Your task to perform on an android device: turn off location history Image 0: 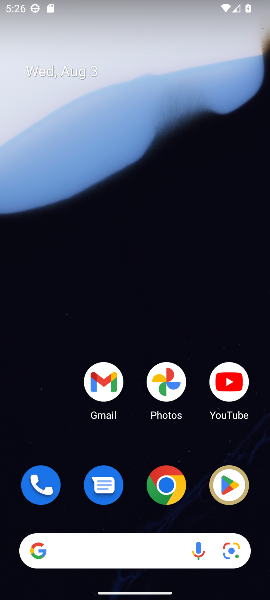
Step 0: drag from (144, 457) to (183, 274)
Your task to perform on an android device: turn off location history Image 1: 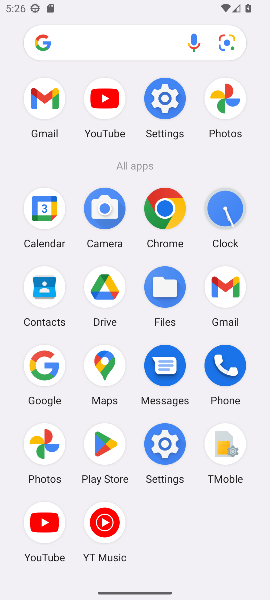
Step 1: click (165, 458)
Your task to perform on an android device: turn off location history Image 2: 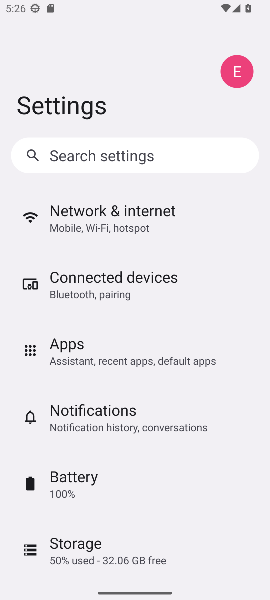
Step 2: drag from (121, 435) to (153, 267)
Your task to perform on an android device: turn off location history Image 3: 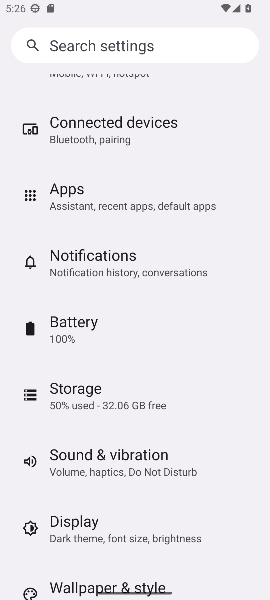
Step 3: drag from (108, 469) to (134, 308)
Your task to perform on an android device: turn off location history Image 4: 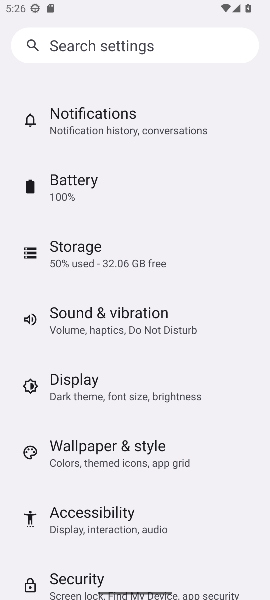
Step 4: drag from (114, 500) to (160, 354)
Your task to perform on an android device: turn off location history Image 5: 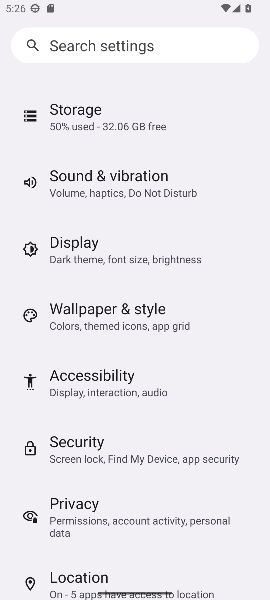
Step 5: click (84, 575)
Your task to perform on an android device: turn off location history Image 6: 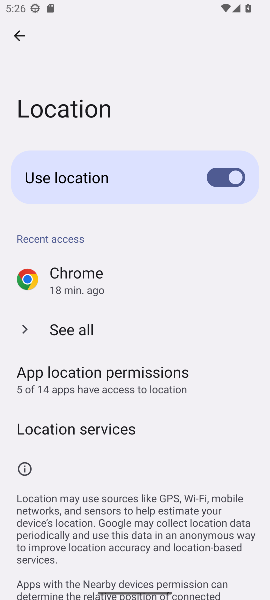
Step 6: drag from (150, 409) to (174, 257)
Your task to perform on an android device: turn off location history Image 7: 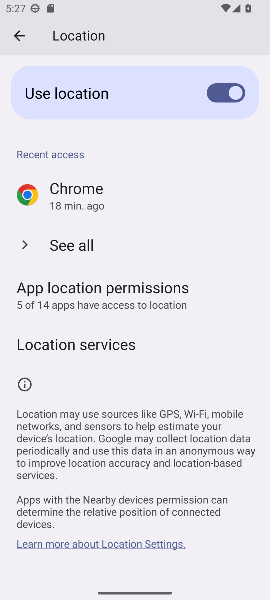
Step 7: click (75, 352)
Your task to perform on an android device: turn off location history Image 8: 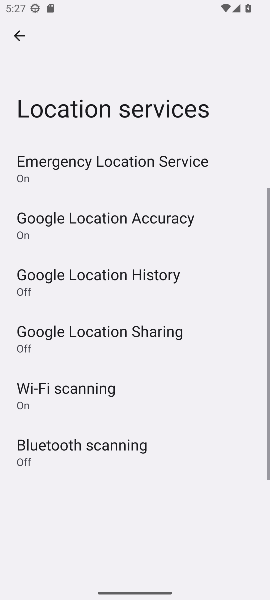
Step 8: click (132, 278)
Your task to perform on an android device: turn off location history Image 9: 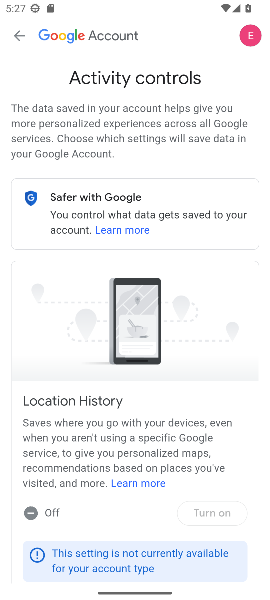
Step 9: task complete